Your task to perform on an android device: toggle data saver in the chrome app Image 0: 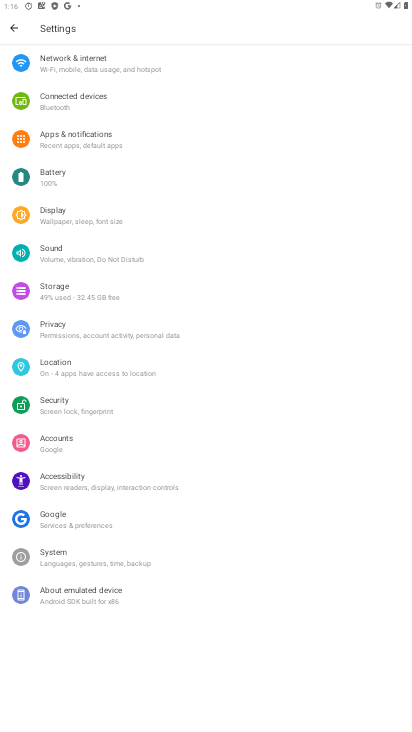
Step 0: press home button
Your task to perform on an android device: toggle data saver in the chrome app Image 1: 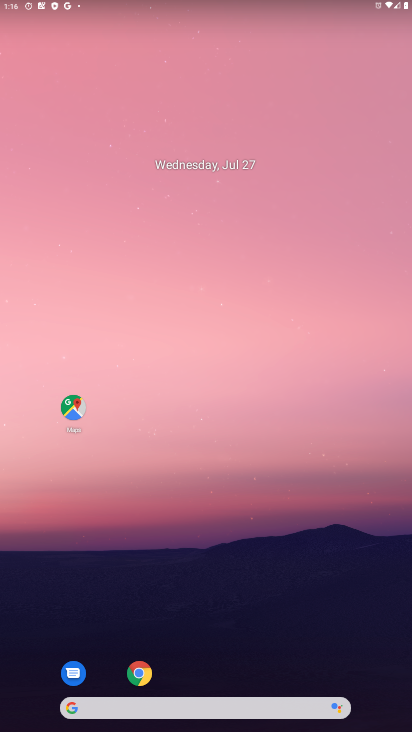
Step 1: click (138, 675)
Your task to perform on an android device: toggle data saver in the chrome app Image 2: 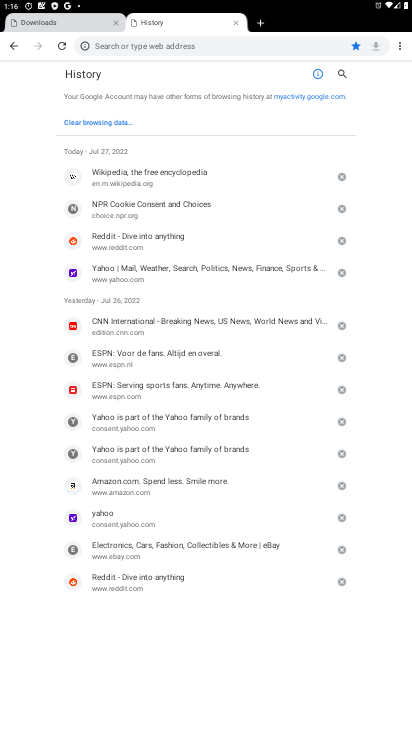
Step 2: drag from (403, 48) to (298, 221)
Your task to perform on an android device: toggle data saver in the chrome app Image 3: 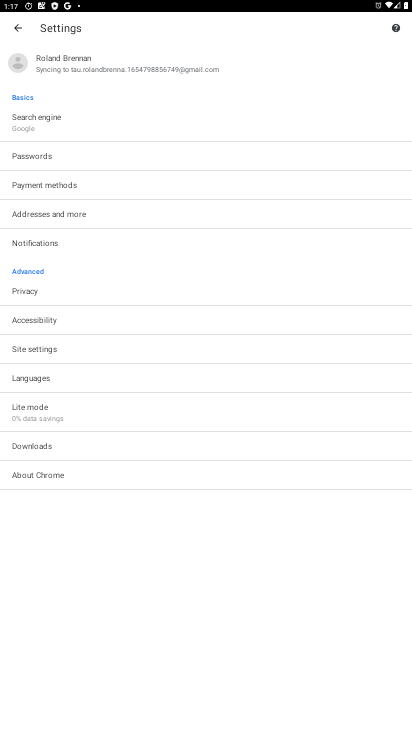
Step 3: click (32, 410)
Your task to perform on an android device: toggle data saver in the chrome app Image 4: 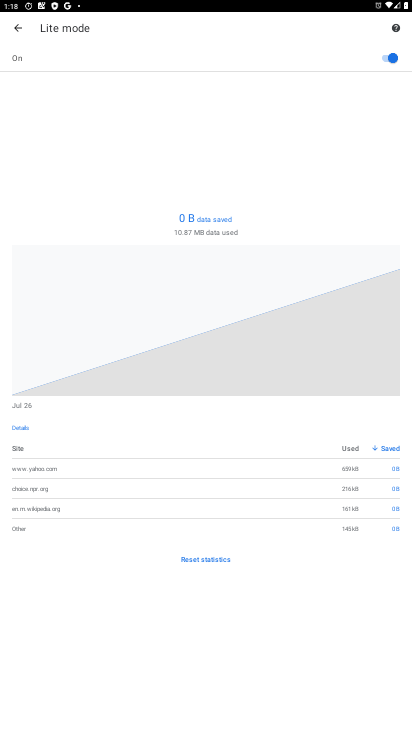
Step 4: click (390, 56)
Your task to perform on an android device: toggle data saver in the chrome app Image 5: 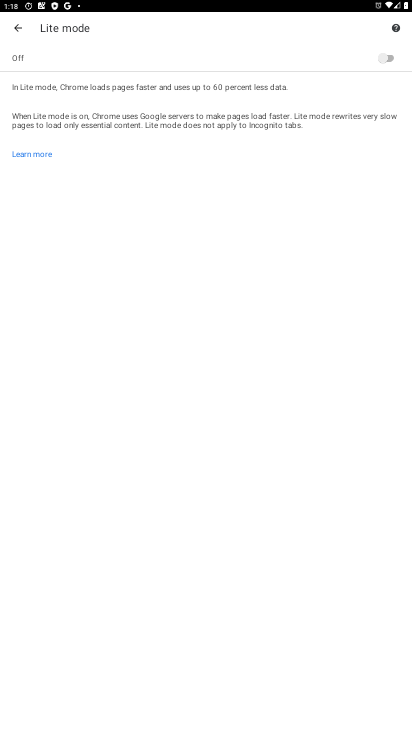
Step 5: task complete